Your task to perform on an android device: Go to Google maps Image 0: 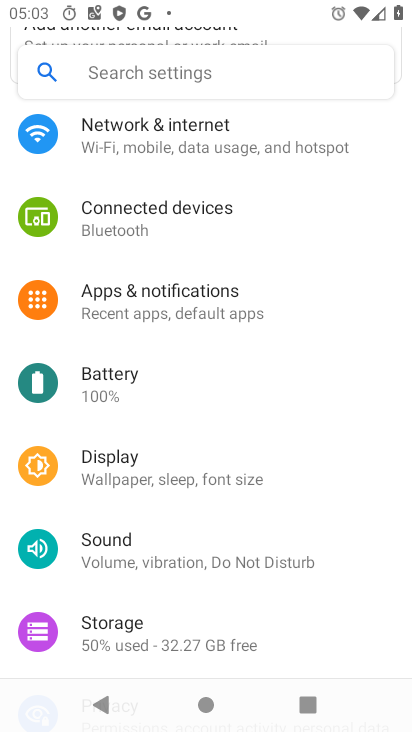
Step 0: press home button
Your task to perform on an android device: Go to Google maps Image 1: 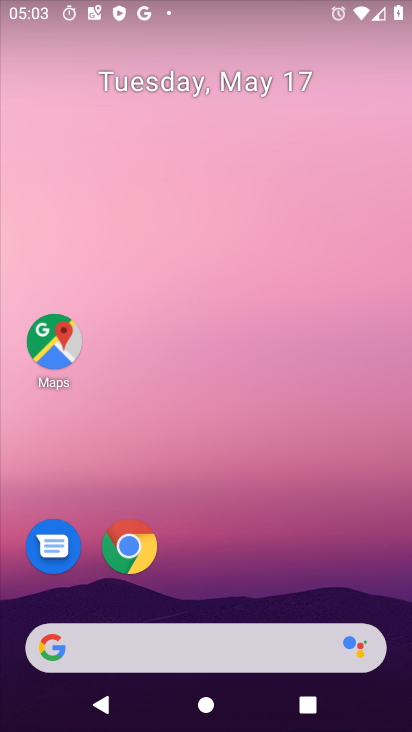
Step 1: click (49, 336)
Your task to perform on an android device: Go to Google maps Image 2: 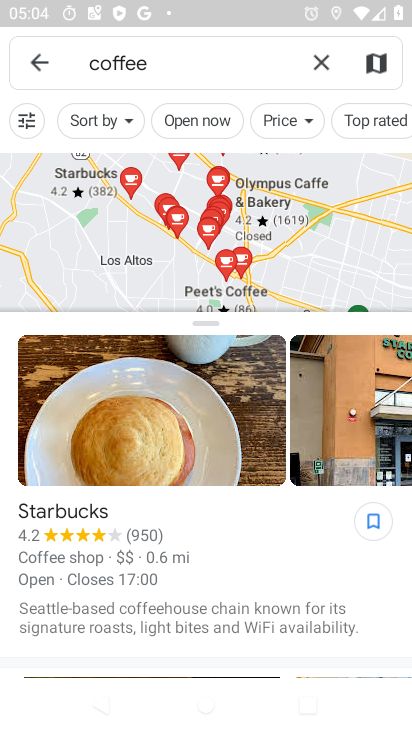
Step 2: click (42, 70)
Your task to perform on an android device: Go to Google maps Image 3: 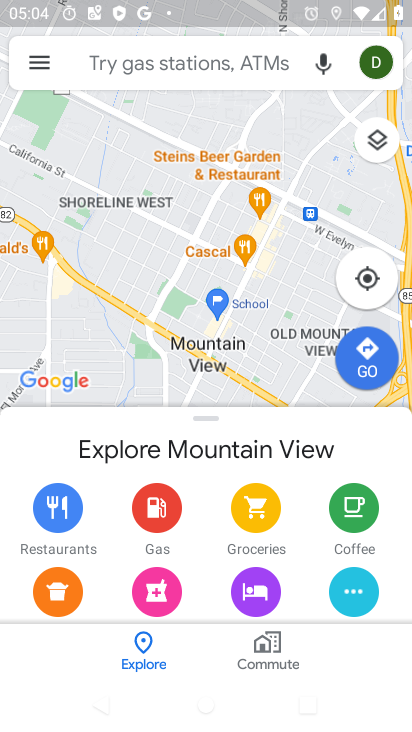
Step 3: task complete